Your task to perform on an android device: Go to network settings Image 0: 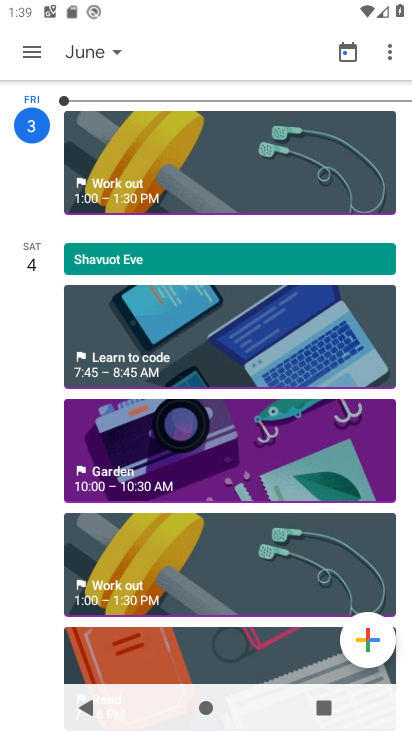
Step 0: press home button
Your task to perform on an android device: Go to network settings Image 1: 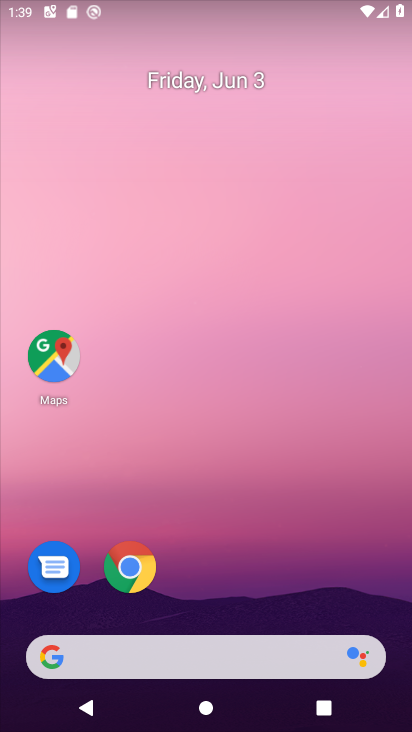
Step 1: drag from (257, 609) to (233, 245)
Your task to perform on an android device: Go to network settings Image 2: 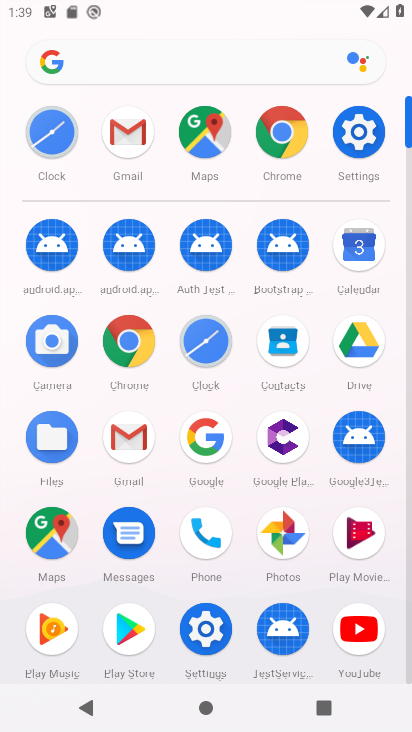
Step 2: click (342, 128)
Your task to perform on an android device: Go to network settings Image 3: 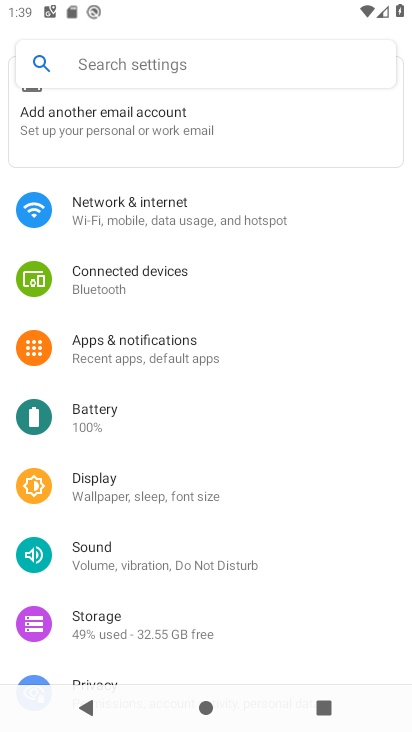
Step 3: click (170, 204)
Your task to perform on an android device: Go to network settings Image 4: 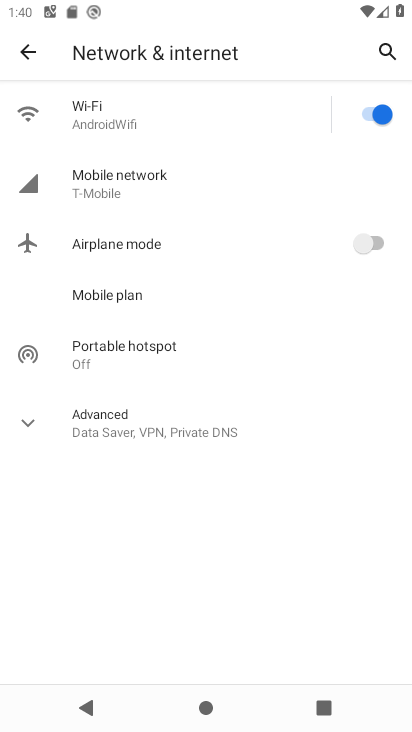
Step 4: task complete